Your task to perform on an android device: turn off wifi Image 0: 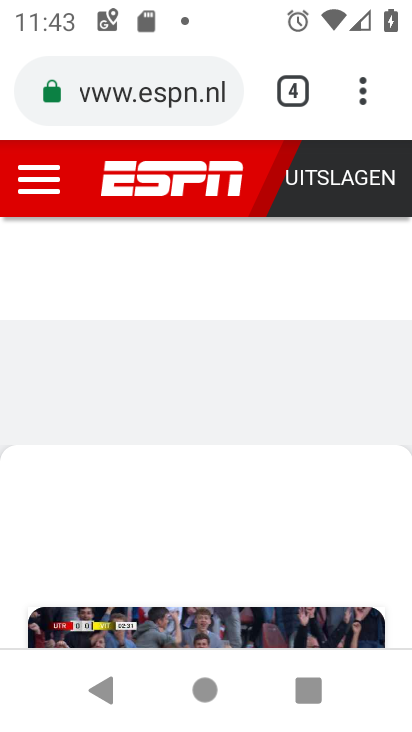
Step 0: press home button
Your task to perform on an android device: turn off wifi Image 1: 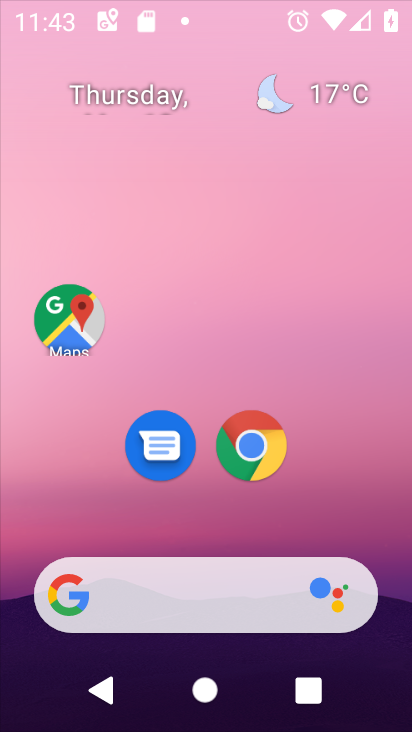
Step 1: drag from (329, 20) to (255, 476)
Your task to perform on an android device: turn off wifi Image 2: 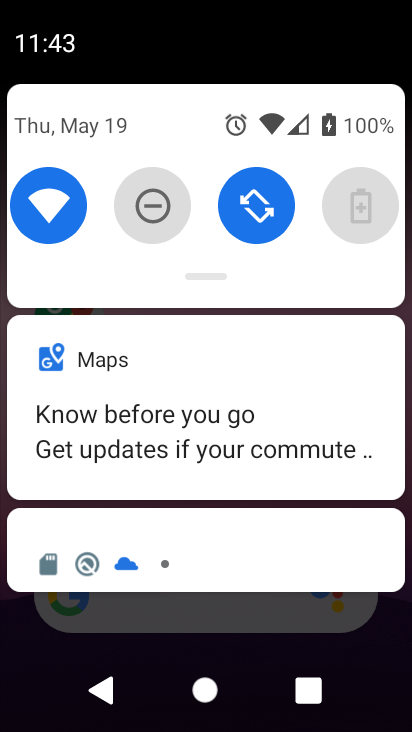
Step 2: click (33, 212)
Your task to perform on an android device: turn off wifi Image 3: 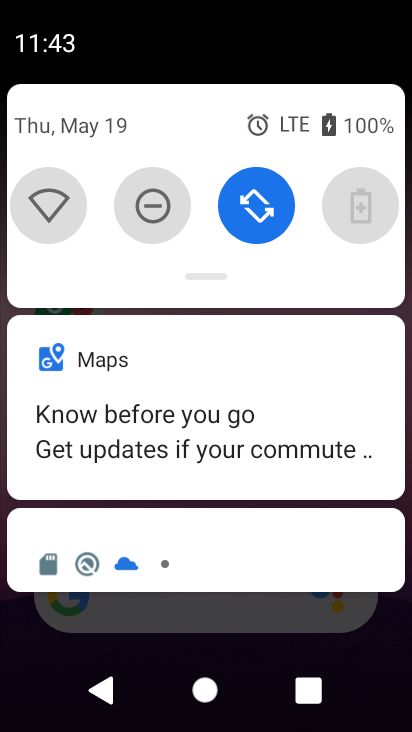
Step 3: task complete